Your task to perform on an android device: Do I have any events this weekend? Image 0: 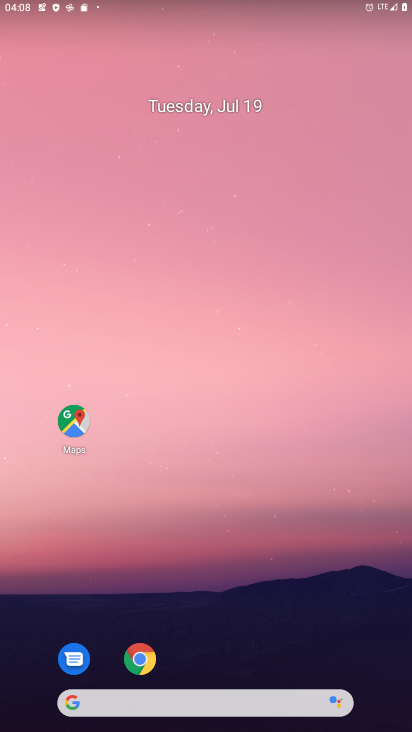
Step 0: drag from (241, 630) to (258, 140)
Your task to perform on an android device: Do I have any events this weekend? Image 1: 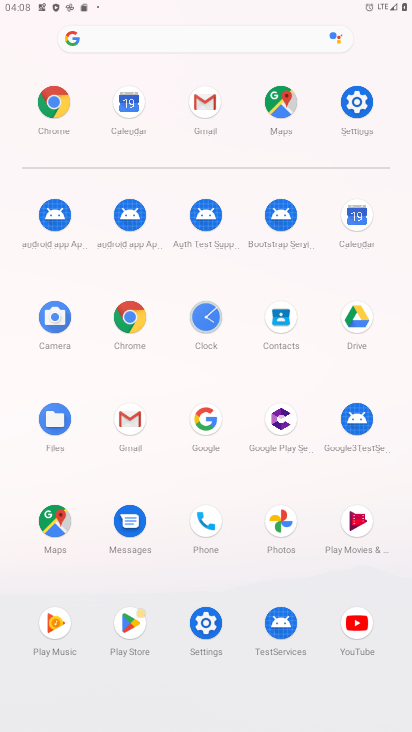
Step 1: click (369, 211)
Your task to perform on an android device: Do I have any events this weekend? Image 2: 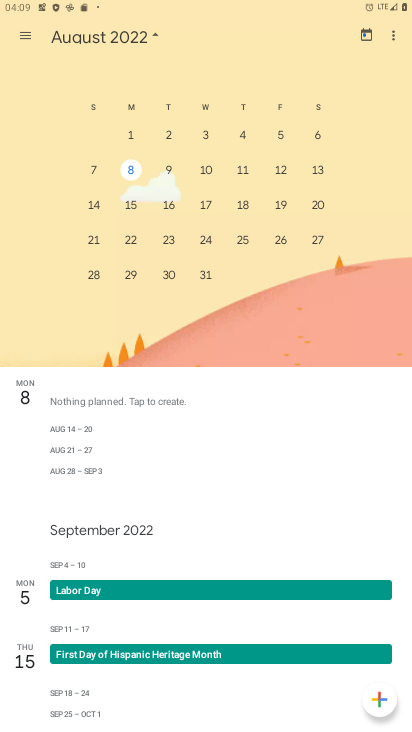
Step 2: drag from (101, 224) to (310, 279)
Your task to perform on an android device: Do I have any events this weekend? Image 3: 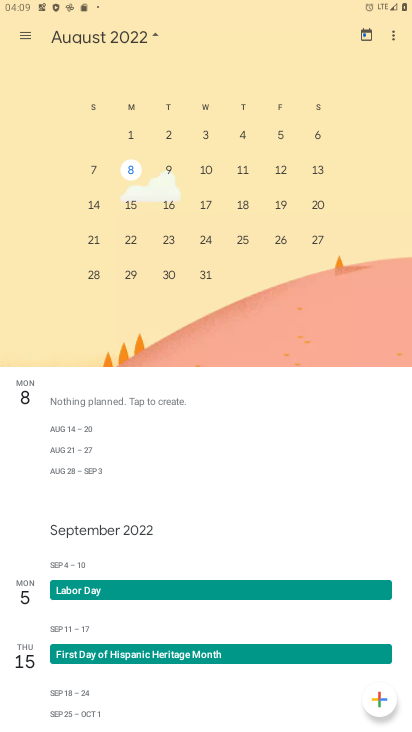
Step 3: drag from (64, 207) to (390, 207)
Your task to perform on an android device: Do I have any events this weekend? Image 4: 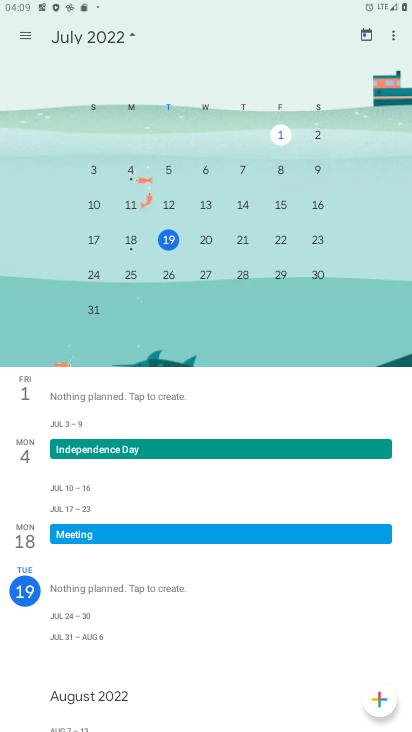
Step 4: click (174, 275)
Your task to perform on an android device: Do I have any events this weekend? Image 5: 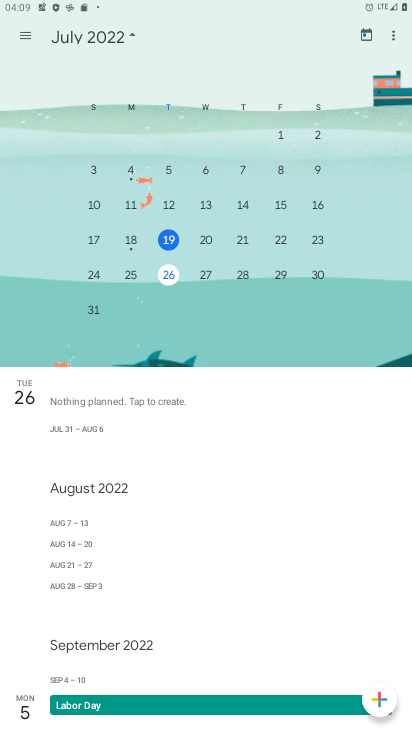
Step 5: click (133, 49)
Your task to perform on an android device: Do I have any events this weekend? Image 6: 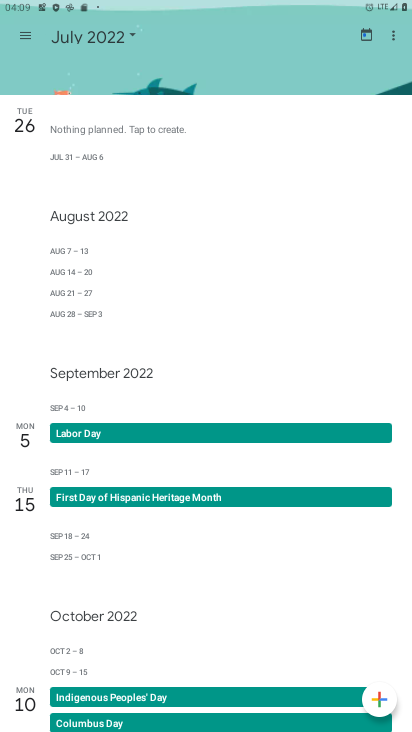
Step 6: task complete